Your task to perform on an android device: allow notifications from all sites in the chrome app Image 0: 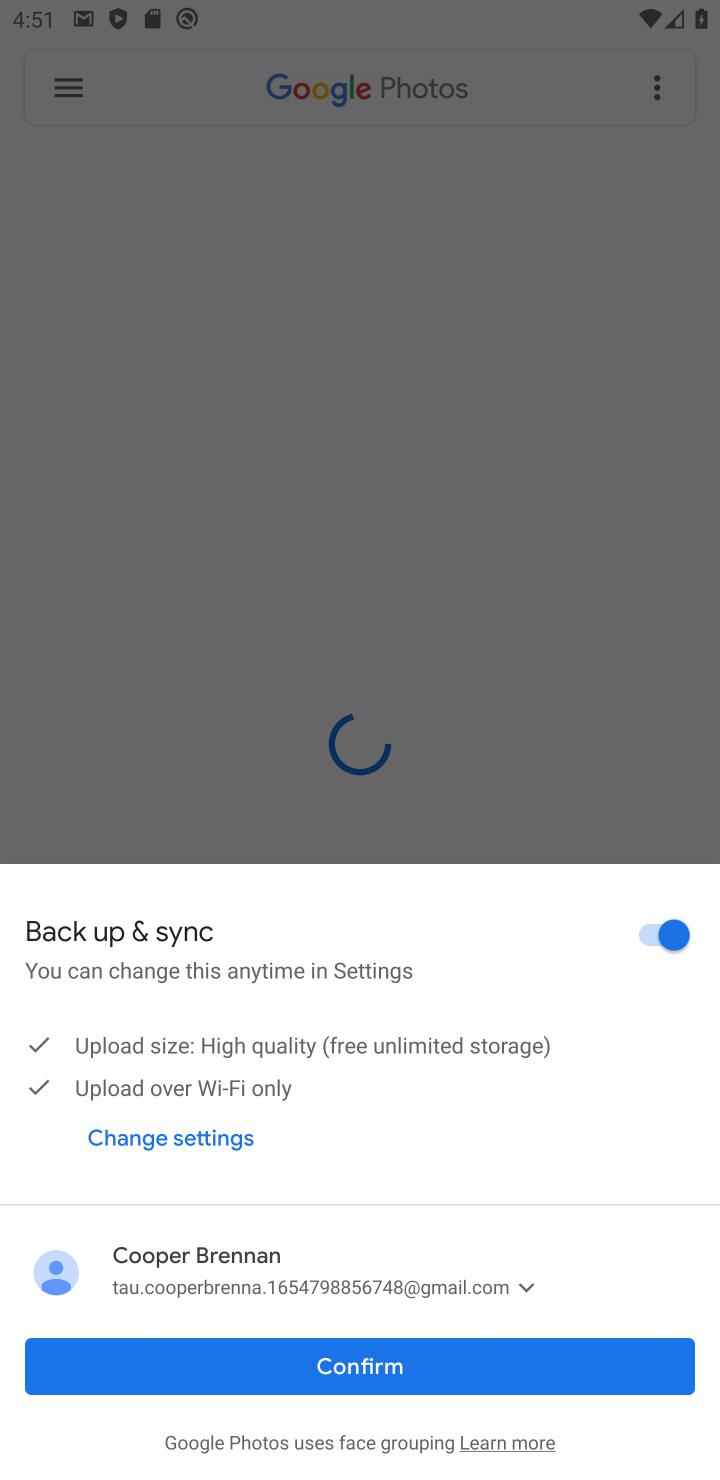
Step 0: press home button
Your task to perform on an android device: allow notifications from all sites in the chrome app Image 1: 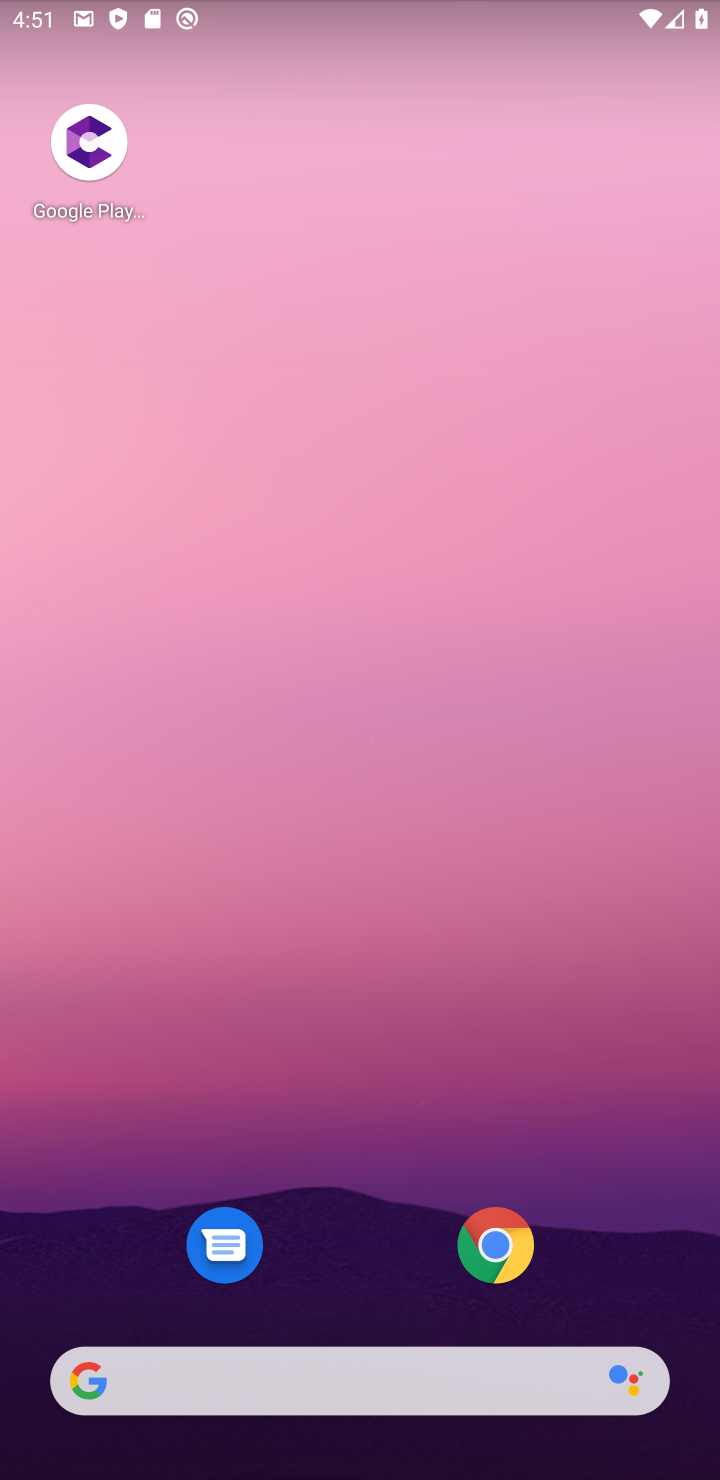
Step 1: click (473, 1247)
Your task to perform on an android device: allow notifications from all sites in the chrome app Image 2: 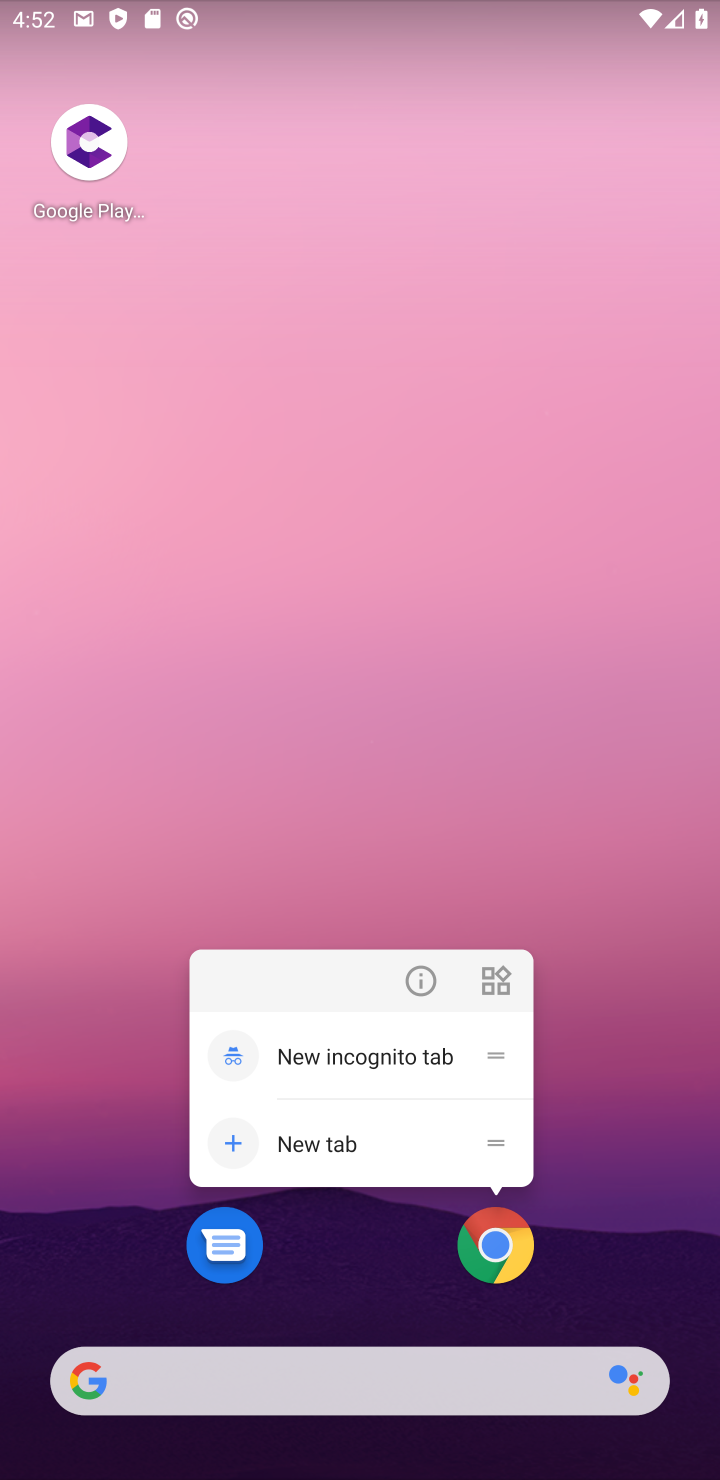
Step 2: click (473, 1247)
Your task to perform on an android device: allow notifications from all sites in the chrome app Image 3: 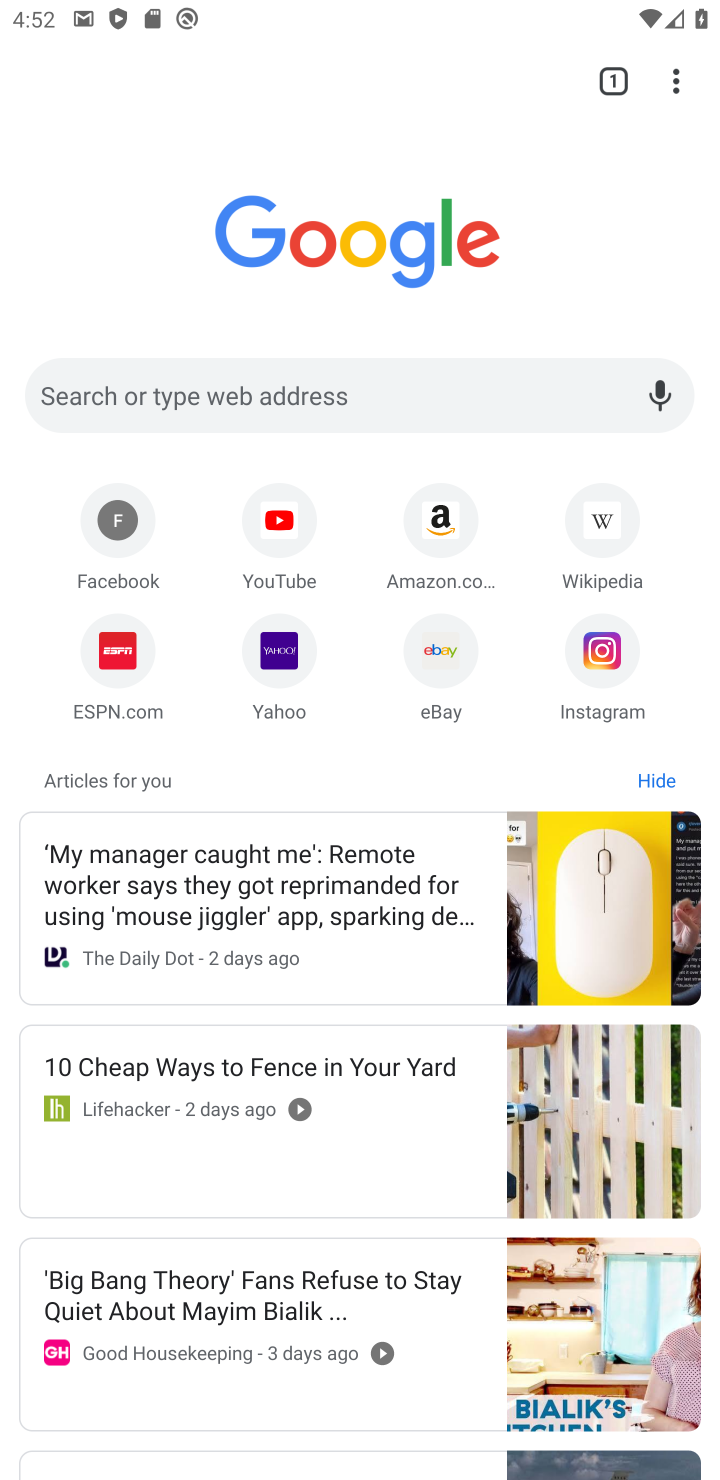
Step 3: drag from (676, 82) to (406, 692)
Your task to perform on an android device: allow notifications from all sites in the chrome app Image 4: 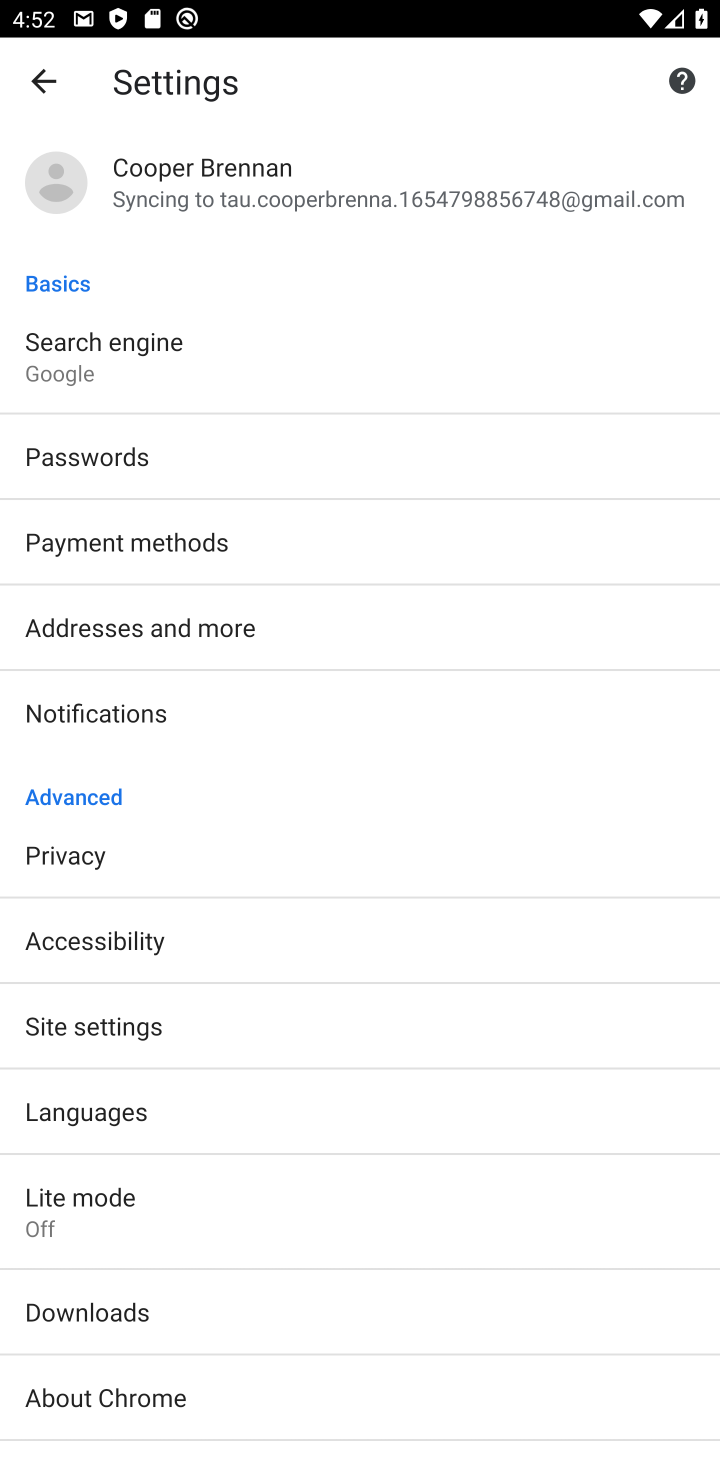
Step 4: click (155, 720)
Your task to perform on an android device: allow notifications from all sites in the chrome app Image 5: 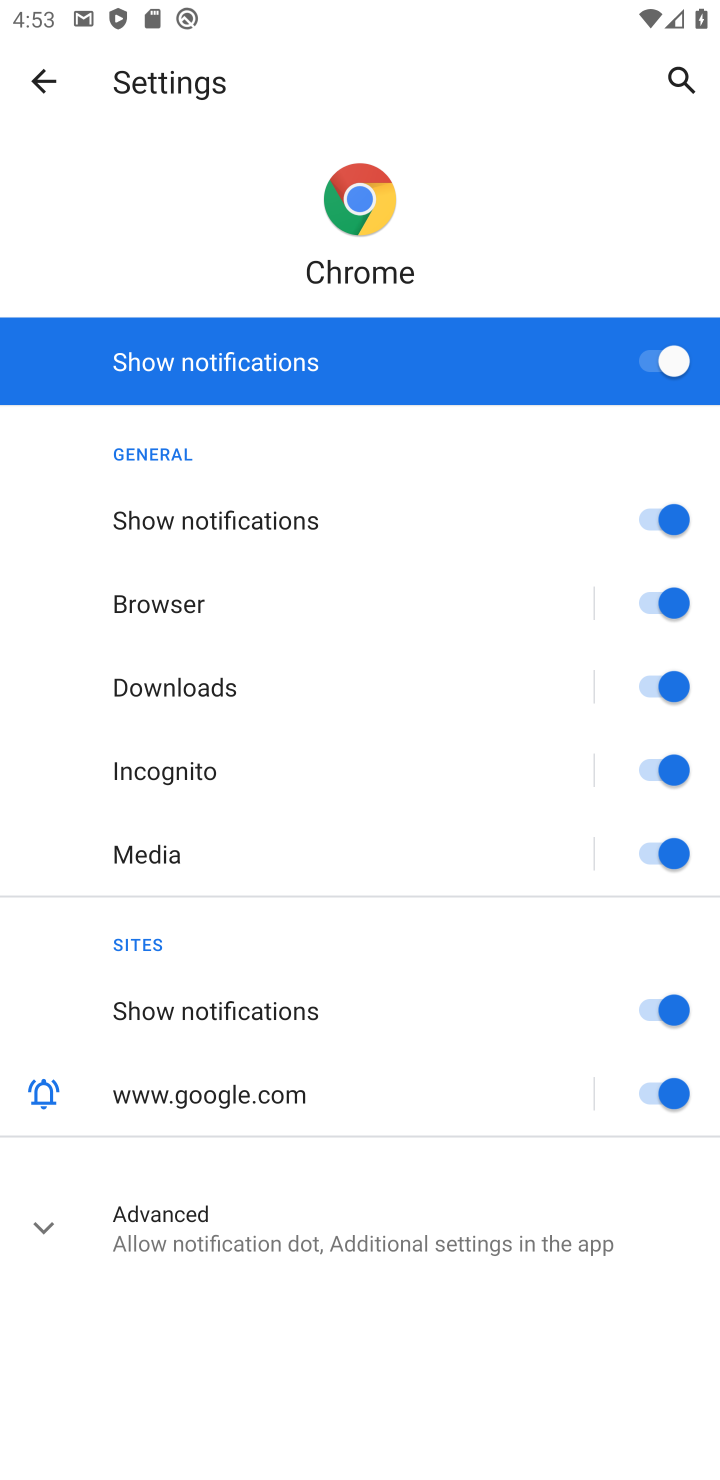
Step 5: task complete